Your task to perform on an android device: Open settings Image 0: 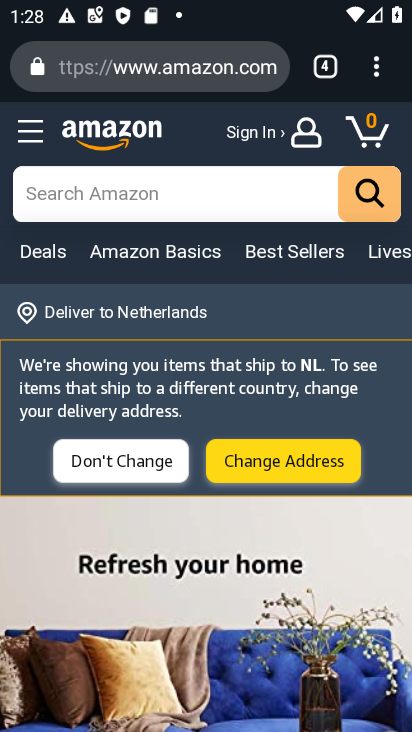
Step 0: press home button
Your task to perform on an android device: Open settings Image 1: 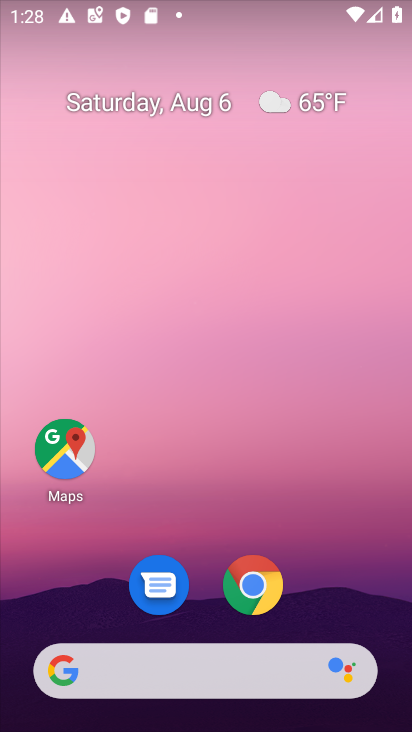
Step 1: drag from (240, 535) to (309, 3)
Your task to perform on an android device: Open settings Image 2: 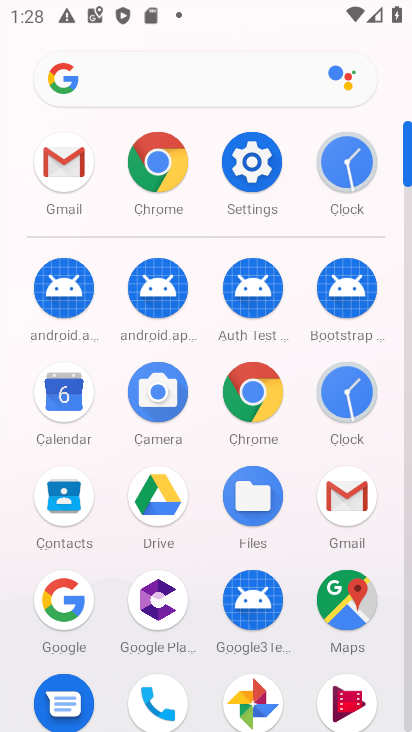
Step 2: click (258, 156)
Your task to perform on an android device: Open settings Image 3: 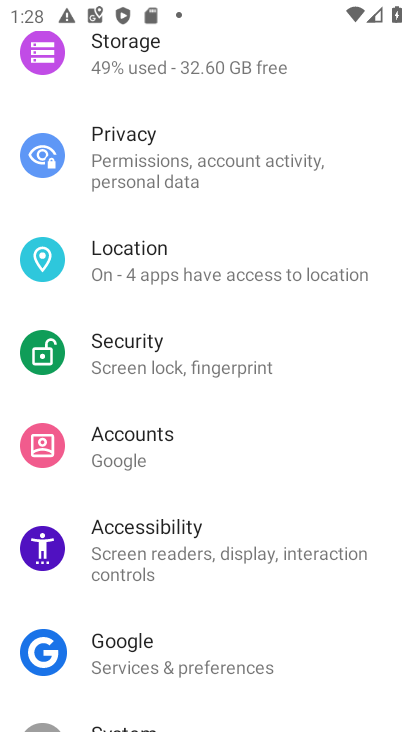
Step 3: task complete